Your task to perform on an android device: turn on location history Image 0: 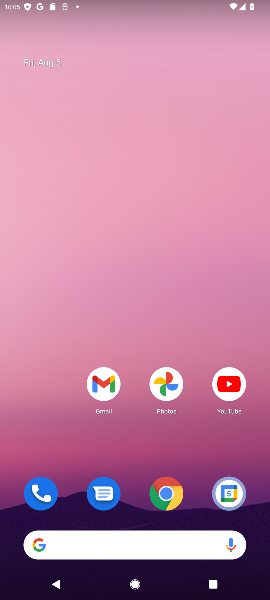
Step 0: press home button
Your task to perform on an android device: turn on location history Image 1: 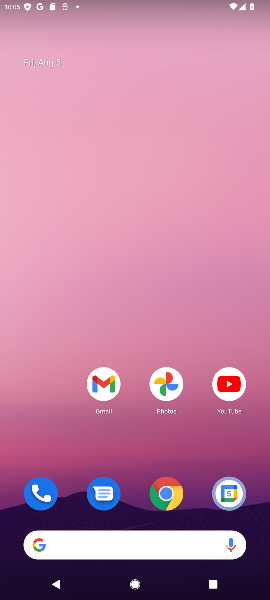
Step 1: drag from (132, 469) to (164, 12)
Your task to perform on an android device: turn on location history Image 2: 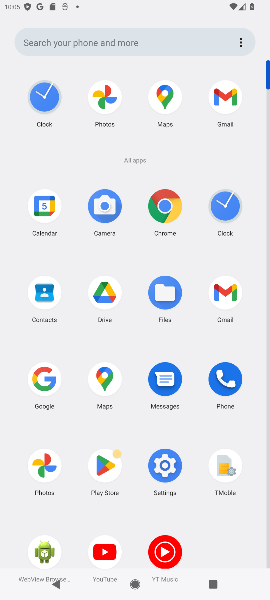
Step 2: click (162, 459)
Your task to perform on an android device: turn on location history Image 3: 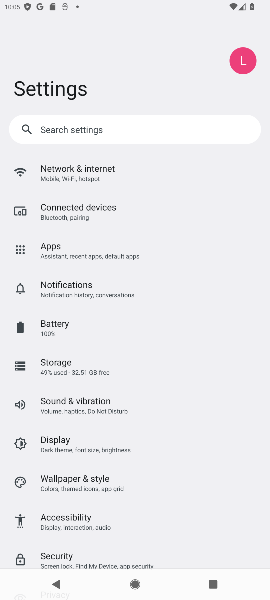
Step 3: drag from (82, 537) to (109, 177)
Your task to perform on an android device: turn on location history Image 4: 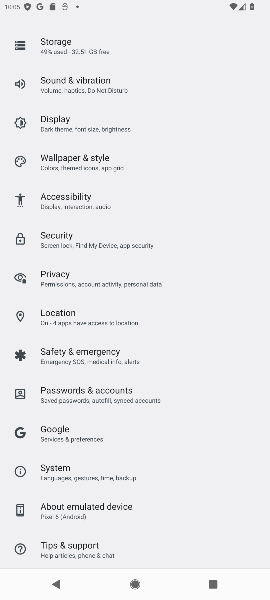
Step 4: click (83, 308)
Your task to perform on an android device: turn on location history Image 5: 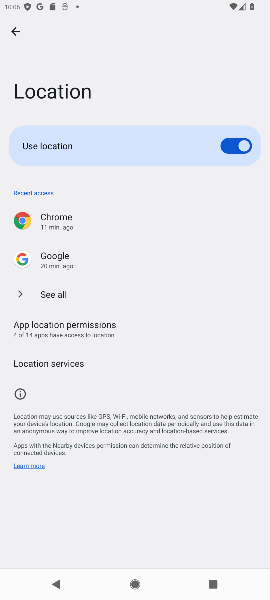
Step 5: click (58, 363)
Your task to perform on an android device: turn on location history Image 6: 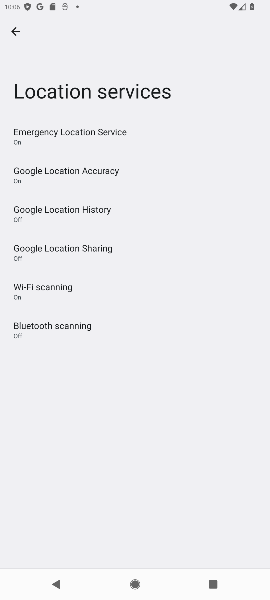
Step 6: click (95, 206)
Your task to perform on an android device: turn on location history Image 7: 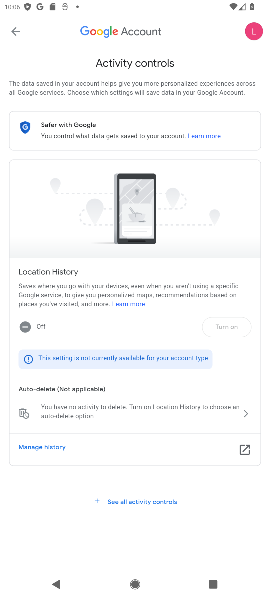
Step 7: click (221, 327)
Your task to perform on an android device: turn on location history Image 8: 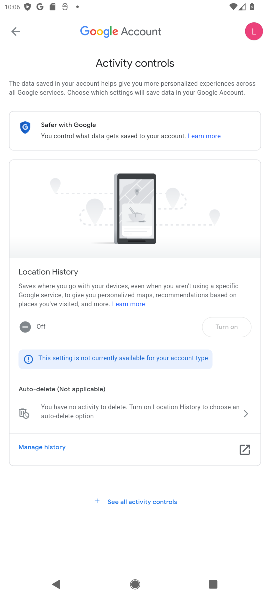
Step 8: click (233, 323)
Your task to perform on an android device: turn on location history Image 9: 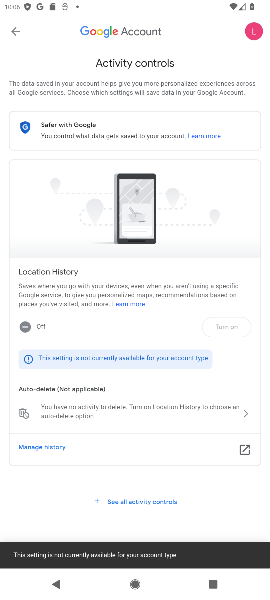
Step 9: task complete